Your task to perform on an android device: What's a good restaurant in Sacramento? Image 0: 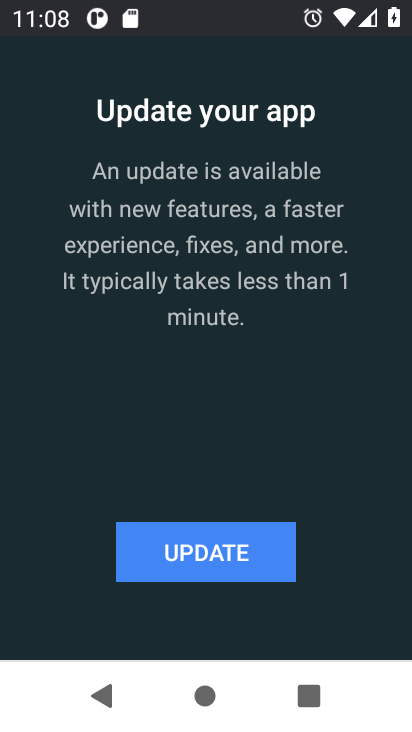
Step 0: press home button
Your task to perform on an android device: What's a good restaurant in Sacramento? Image 1: 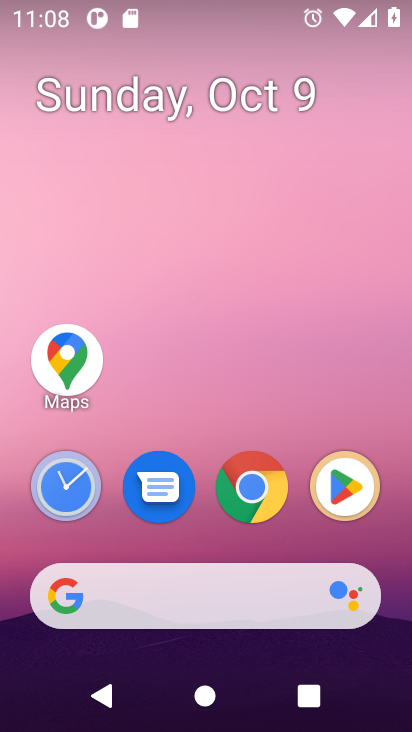
Step 1: drag from (209, 553) to (224, 28)
Your task to perform on an android device: What's a good restaurant in Sacramento? Image 2: 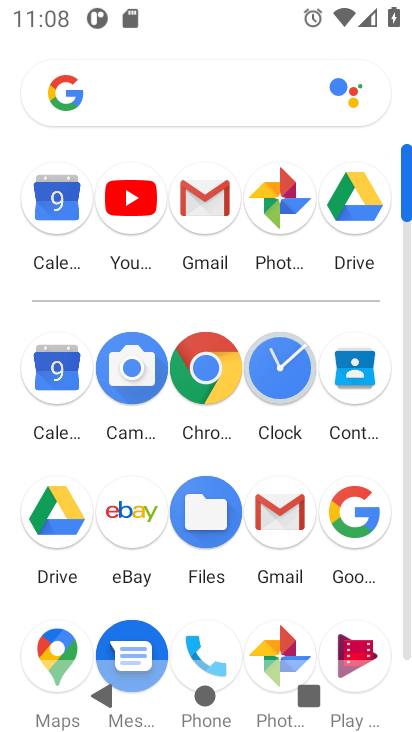
Step 2: click (202, 362)
Your task to perform on an android device: What's a good restaurant in Sacramento? Image 3: 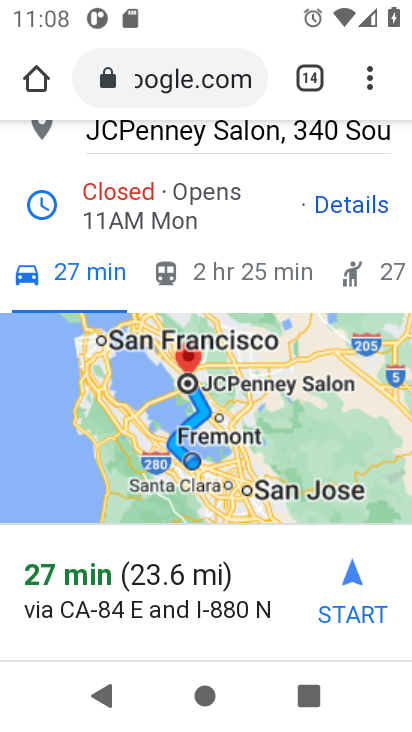
Step 3: drag from (248, 181) to (231, 421)
Your task to perform on an android device: What's a good restaurant in Sacramento? Image 4: 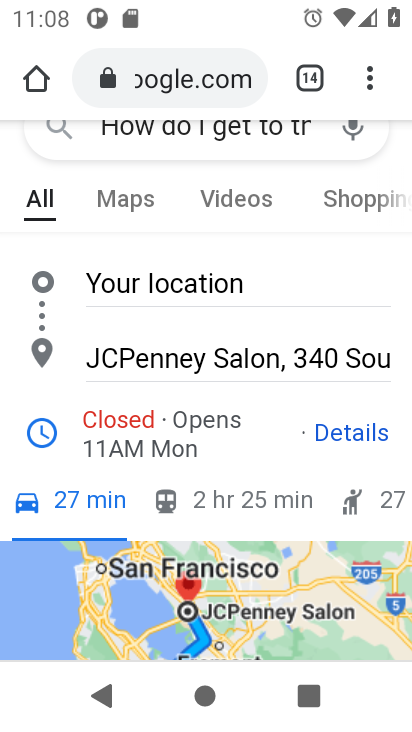
Step 4: drag from (241, 158) to (213, 372)
Your task to perform on an android device: What's a good restaurant in Sacramento? Image 5: 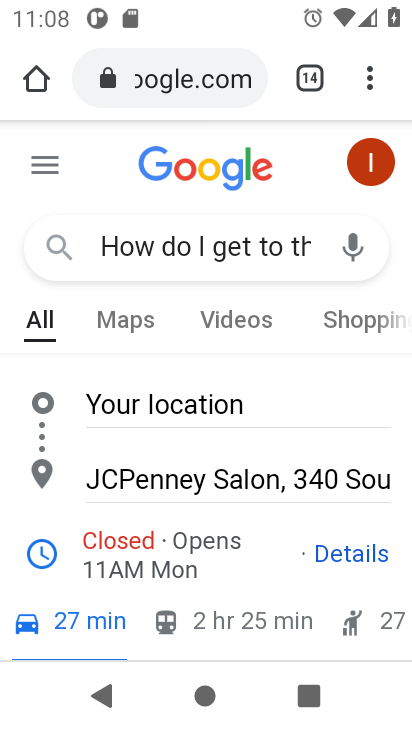
Step 5: click (203, 242)
Your task to perform on an android device: What's a good restaurant in Sacramento? Image 6: 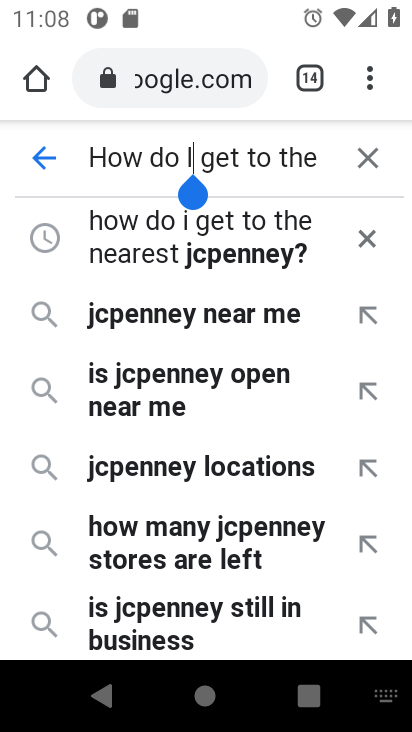
Step 6: click (364, 150)
Your task to perform on an android device: What's a good restaurant in Sacramento? Image 7: 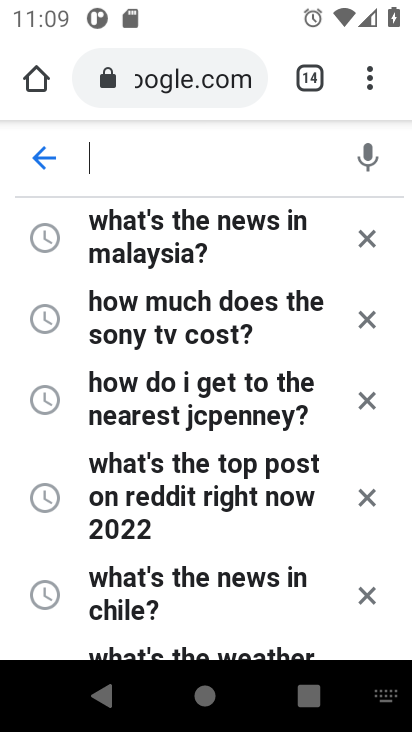
Step 7: type "What's a good restaurant in Sacramento?"
Your task to perform on an android device: What's a good restaurant in Sacramento? Image 8: 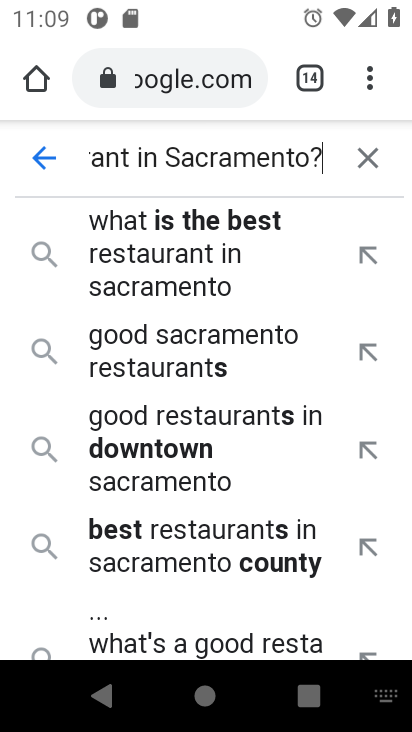
Step 8: type ""
Your task to perform on an android device: What's a good restaurant in Sacramento? Image 9: 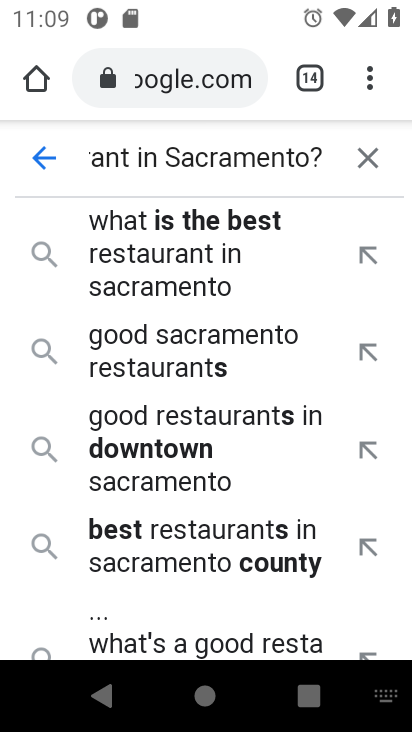
Step 9: click (169, 541)
Your task to perform on an android device: What's a good restaurant in Sacramento? Image 10: 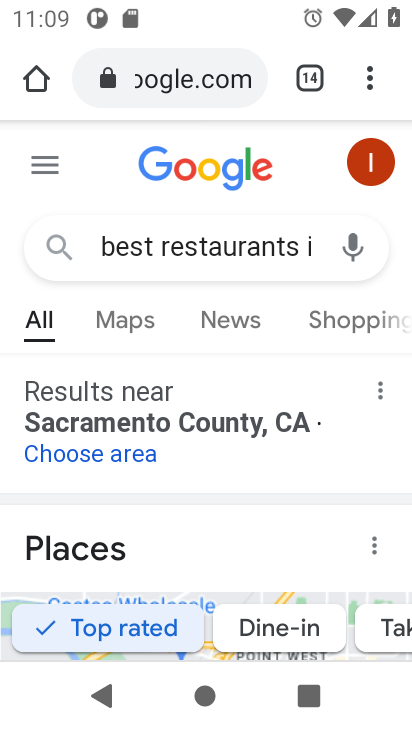
Step 10: task complete